Your task to perform on an android device: What is the recent news? Image 0: 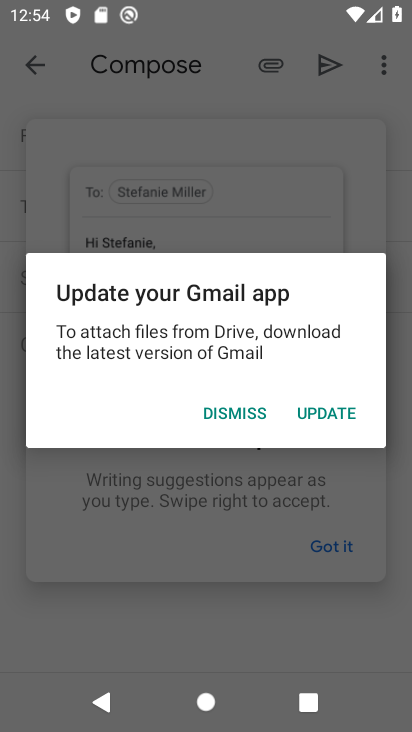
Step 0: press home button
Your task to perform on an android device: What is the recent news? Image 1: 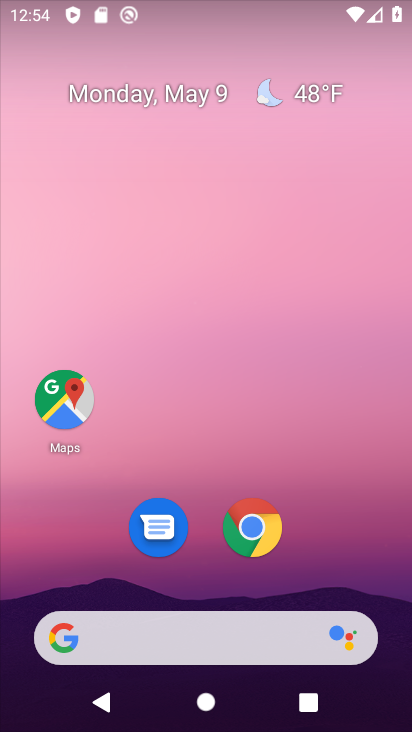
Step 1: click (174, 624)
Your task to perform on an android device: What is the recent news? Image 2: 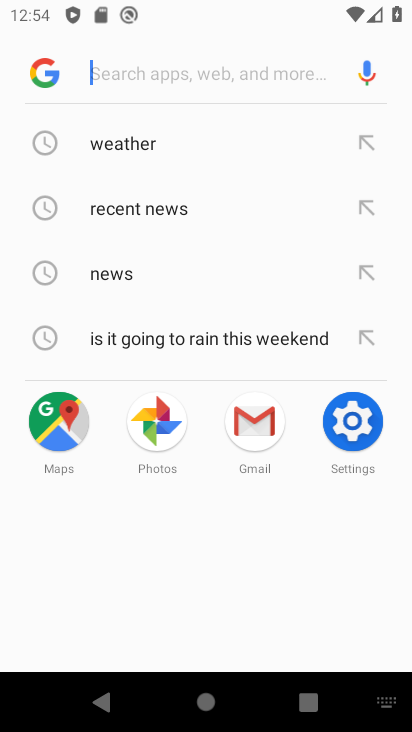
Step 2: type "recent news"
Your task to perform on an android device: What is the recent news? Image 3: 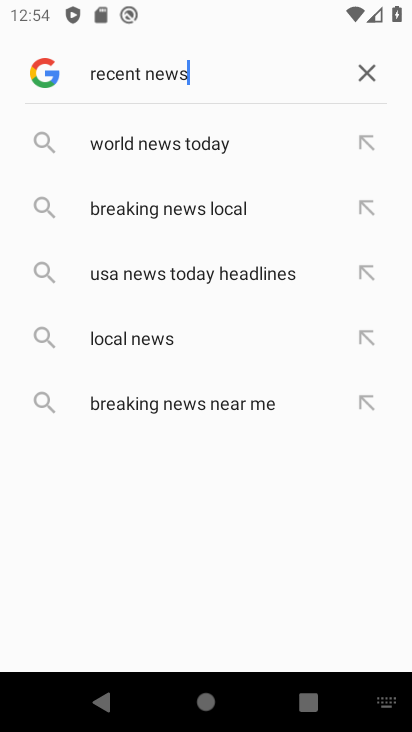
Step 3: click (197, 150)
Your task to perform on an android device: What is the recent news? Image 4: 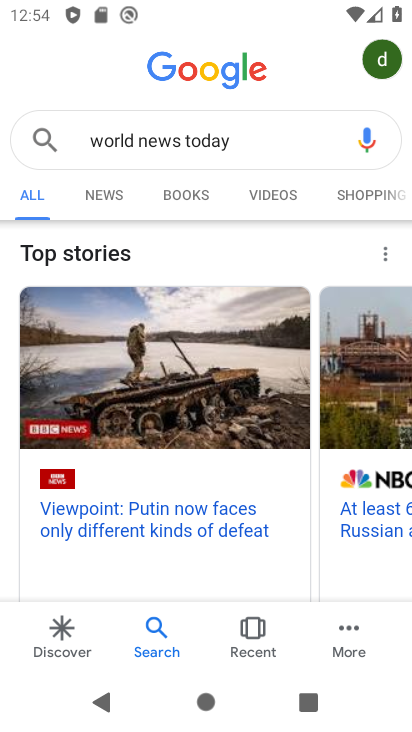
Step 4: task complete